Your task to perform on an android device: Open settings Image 0: 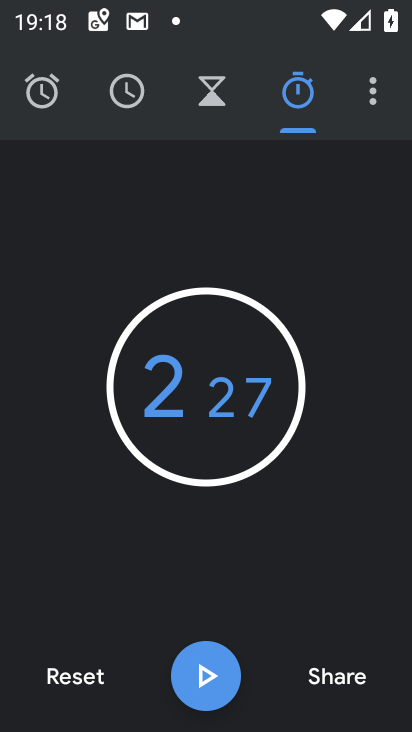
Step 0: press home button
Your task to perform on an android device: Open settings Image 1: 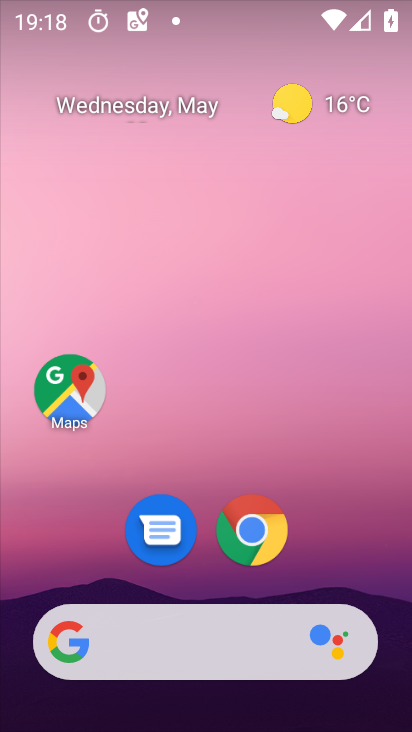
Step 1: drag from (199, 581) to (229, 192)
Your task to perform on an android device: Open settings Image 2: 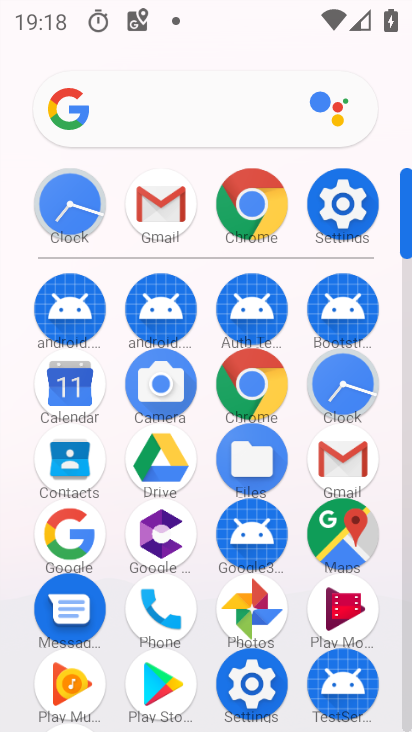
Step 2: click (348, 202)
Your task to perform on an android device: Open settings Image 3: 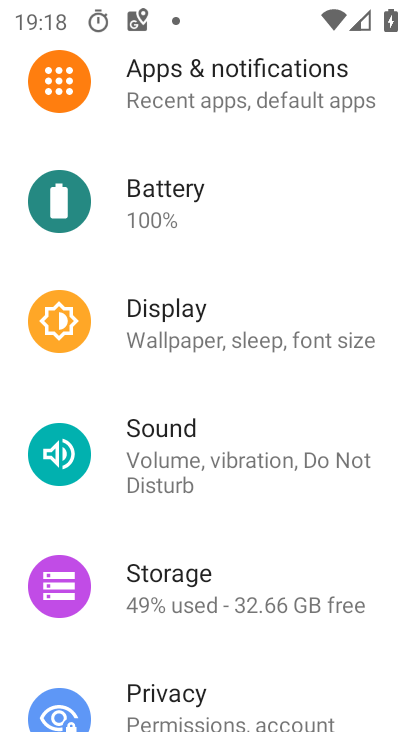
Step 3: task complete